Your task to perform on an android device: stop showing notifications on the lock screen Image 0: 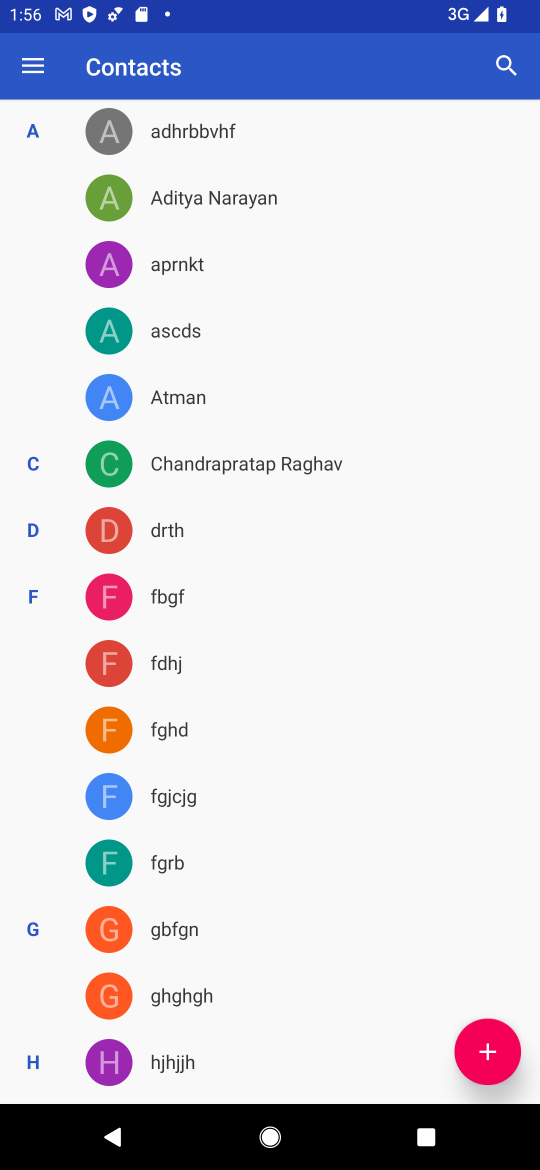
Step 0: press home button
Your task to perform on an android device: stop showing notifications on the lock screen Image 1: 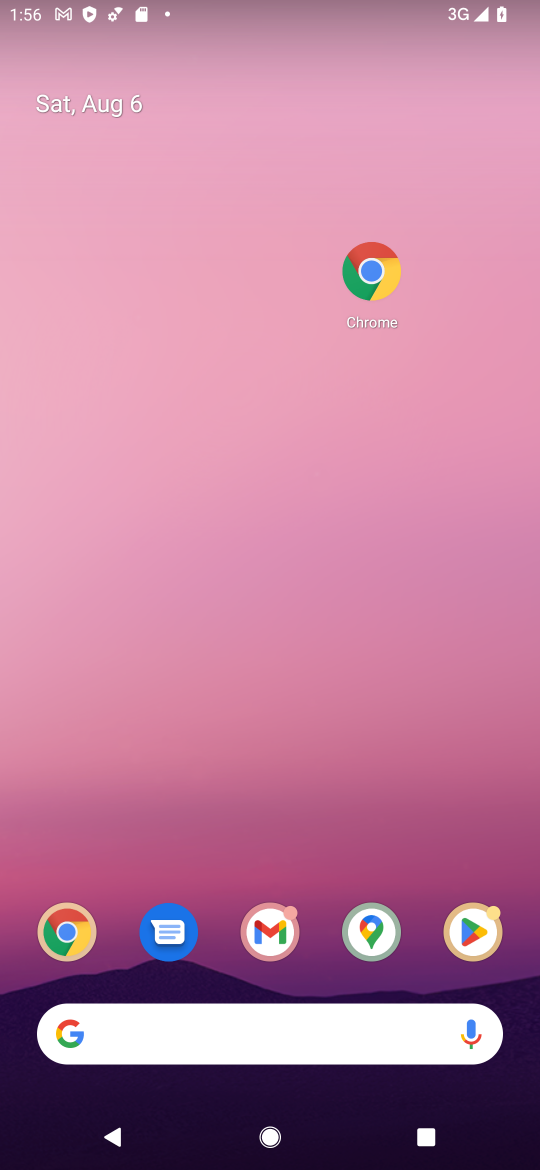
Step 1: drag from (319, 964) to (280, 67)
Your task to perform on an android device: stop showing notifications on the lock screen Image 2: 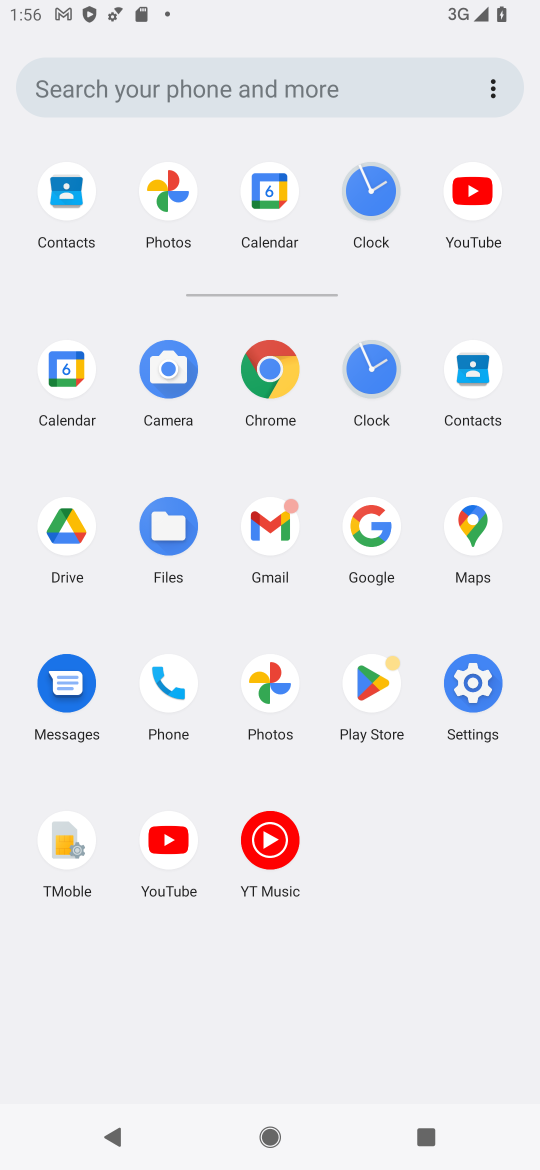
Step 2: click (475, 671)
Your task to perform on an android device: stop showing notifications on the lock screen Image 3: 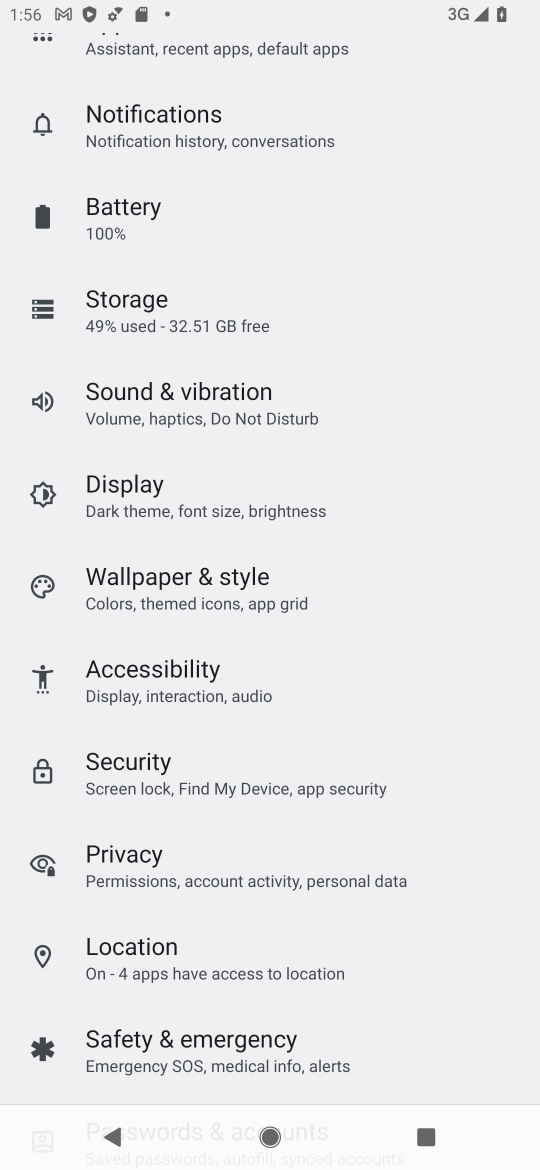
Step 3: click (197, 129)
Your task to perform on an android device: stop showing notifications on the lock screen Image 4: 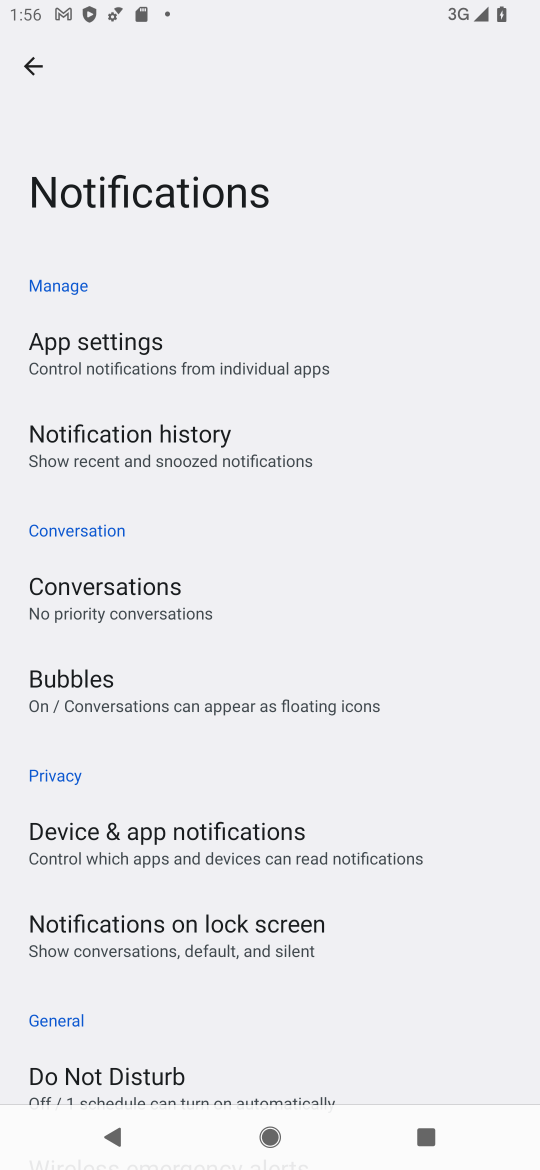
Step 4: click (248, 943)
Your task to perform on an android device: stop showing notifications on the lock screen Image 5: 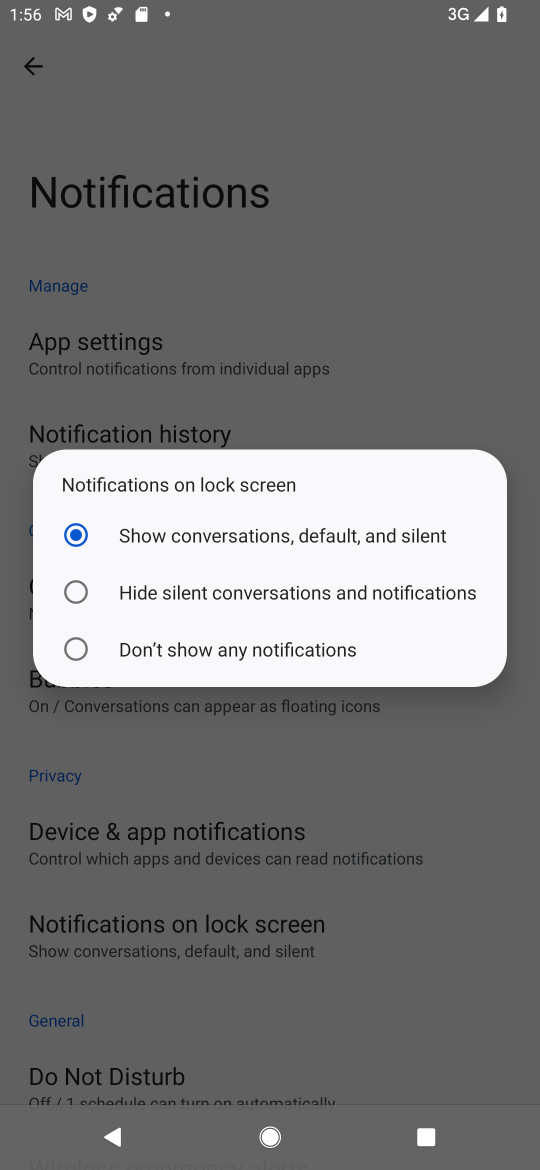
Step 5: click (142, 649)
Your task to perform on an android device: stop showing notifications on the lock screen Image 6: 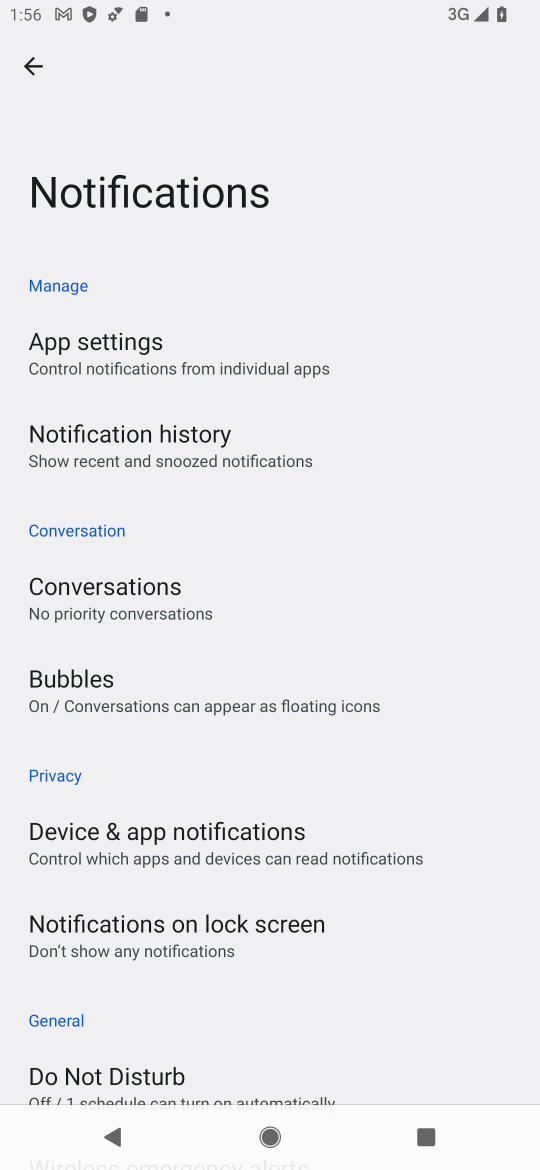
Step 6: task complete